Your task to perform on an android device: turn on showing notifications on the lock screen Image 0: 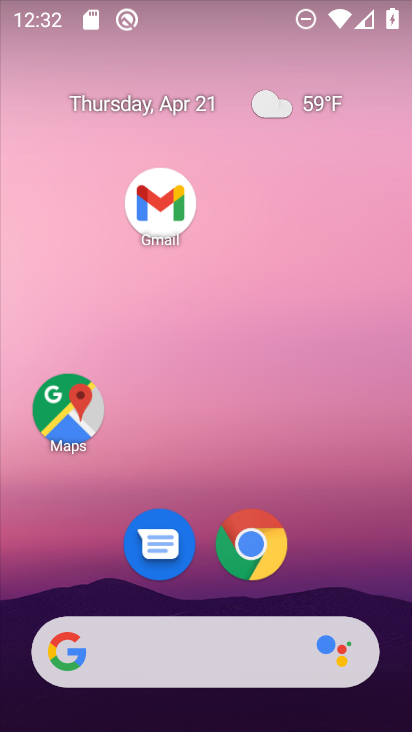
Step 0: drag from (200, 541) to (164, 118)
Your task to perform on an android device: turn on showing notifications on the lock screen Image 1: 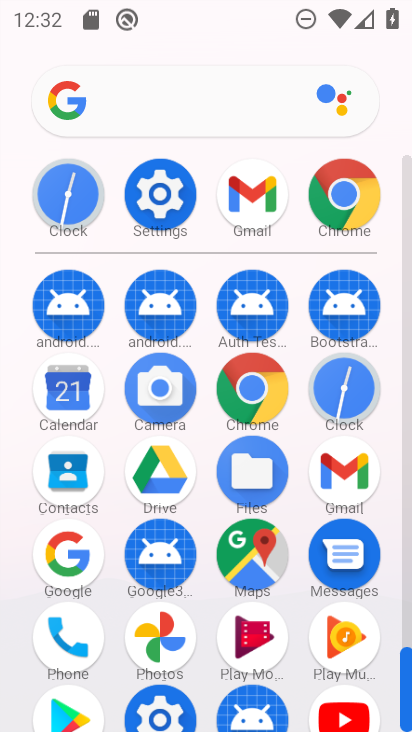
Step 1: click (150, 204)
Your task to perform on an android device: turn on showing notifications on the lock screen Image 2: 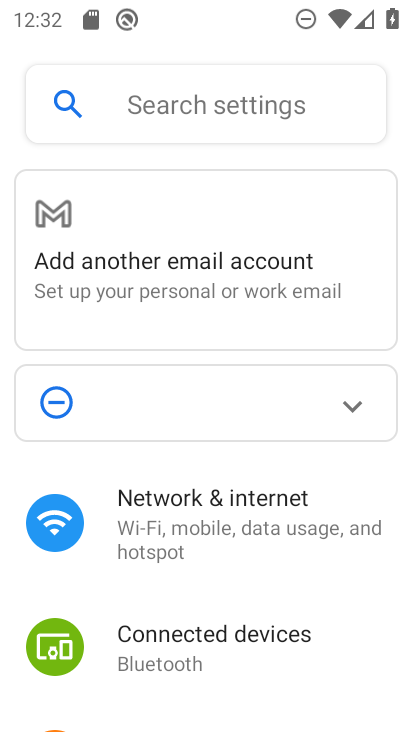
Step 2: drag from (193, 606) to (243, 177)
Your task to perform on an android device: turn on showing notifications on the lock screen Image 3: 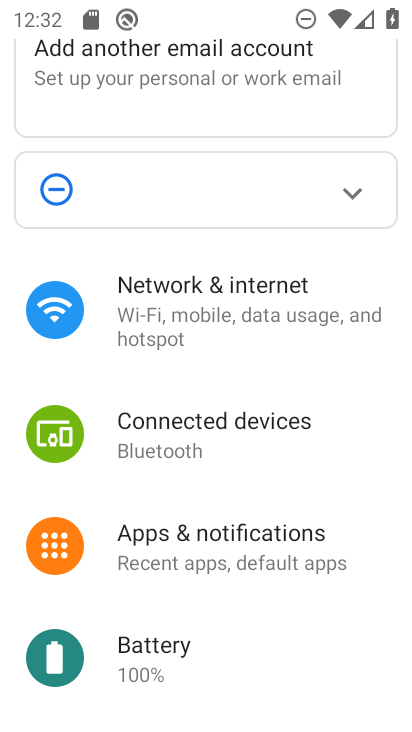
Step 3: drag from (245, 630) to (209, 186)
Your task to perform on an android device: turn on showing notifications on the lock screen Image 4: 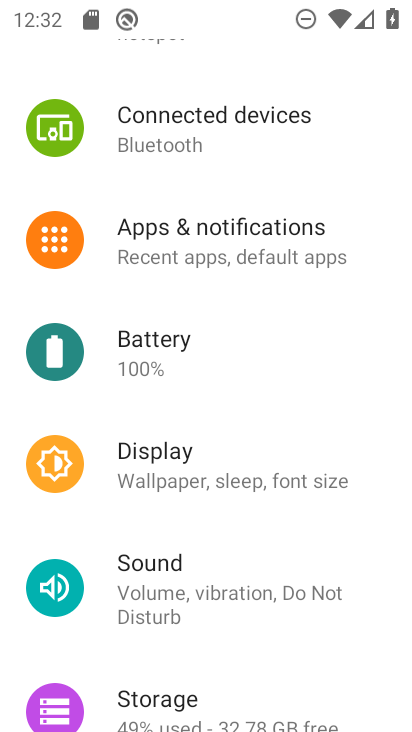
Step 4: drag from (311, 617) to (277, 256)
Your task to perform on an android device: turn on showing notifications on the lock screen Image 5: 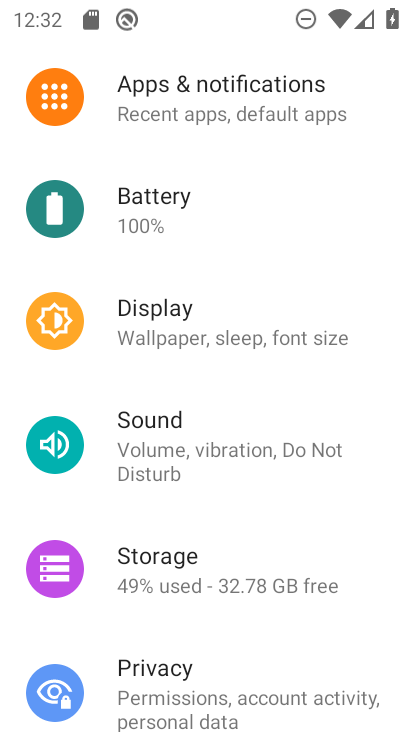
Step 5: drag from (289, 168) to (296, 341)
Your task to perform on an android device: turn on showing notifications on the lock screen Image 6: 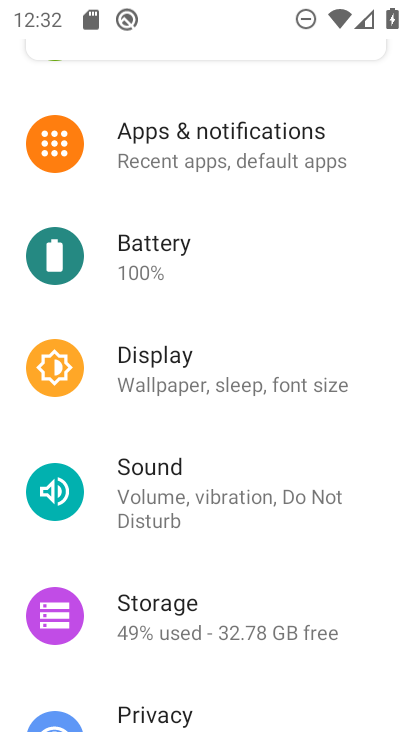
Step 6: click (206, 146)
Your task to perform on an android device: turn on showing notifications on the lock screen Image 7: 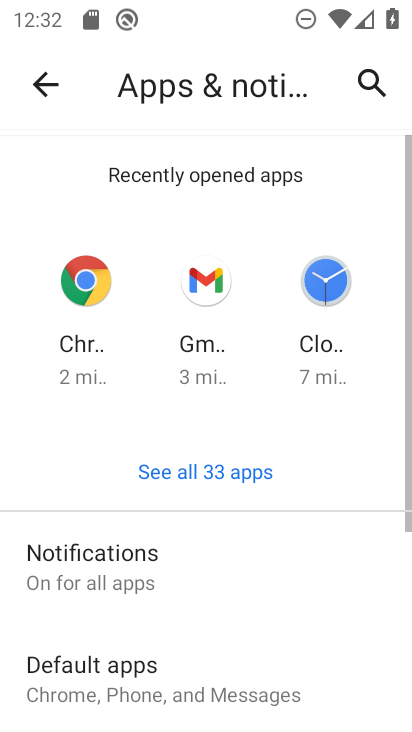
Step 7: click (125, 573)
Your task to perform on an android device: turn on showing notifications on the lock screen Image 8: 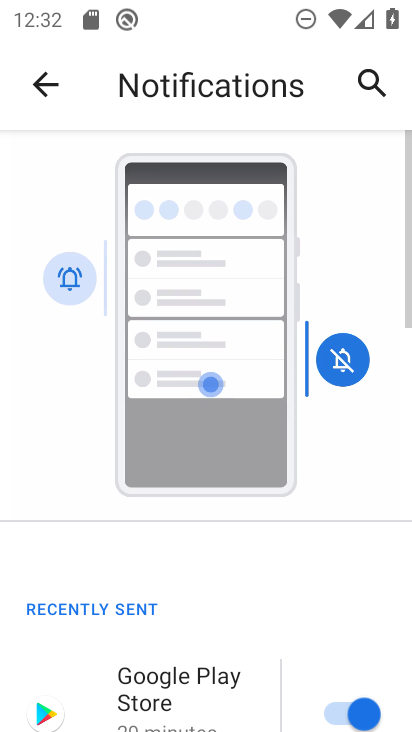
Step 8: drag from (206, 512) to (215, 118)
Your task to perform on an android device: turn on showing notifications on the lock screen Image 9: 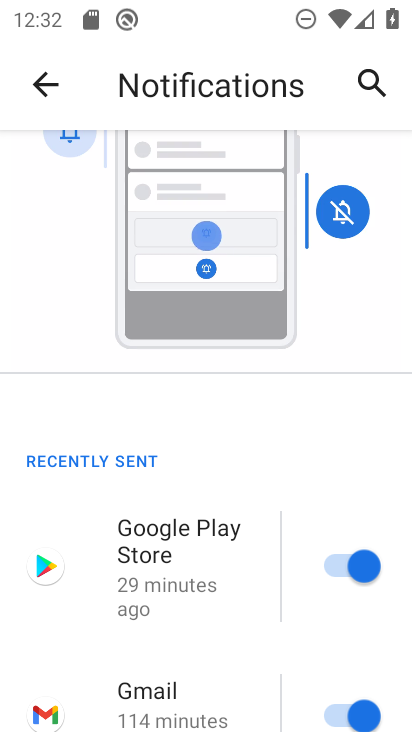
Step 9: drag from (259, 610) to (222, 175)
Your task to perform on an android device: turn on showing notifications on the lock screen Image 10: 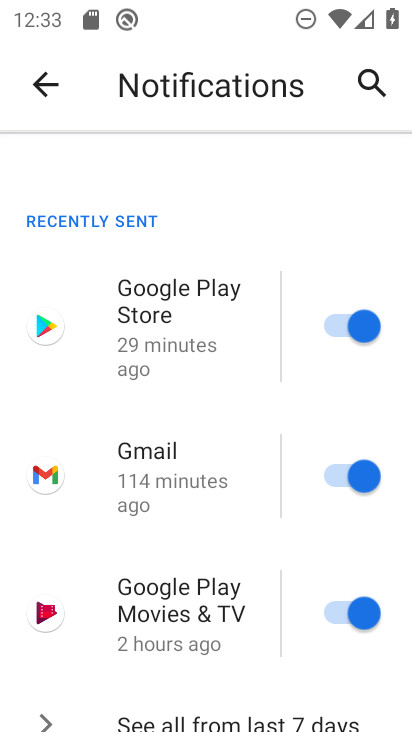
Step 10: drag from (201, 534) to (214, 176)
Your task to perform on an android device: turn on showing notifications on the lock screen Image 11: 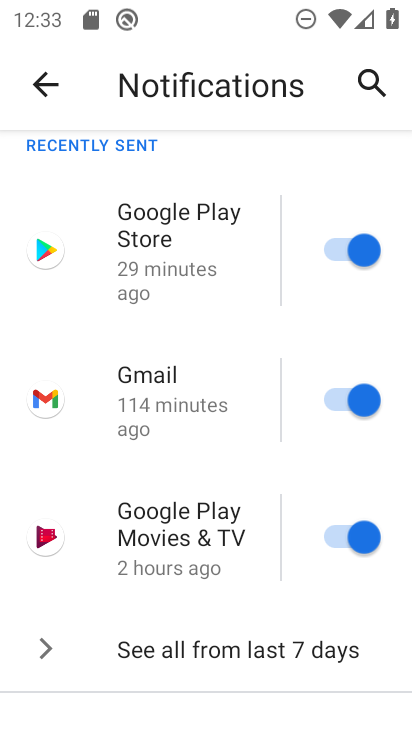
Step 11: drag from (240, 599) to (263, 146)
Your task to perform on an android device: turn on showing notifications on the lock screen Image 12: 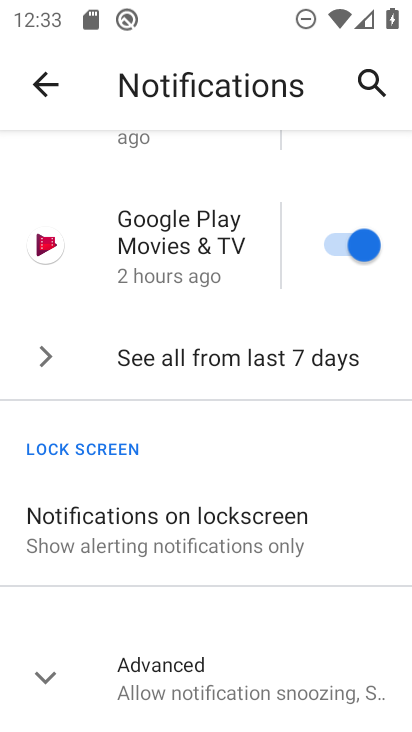
Step 12: click (239, 544)
Your task to perform on an android device: turn on showing notifications on the lock screen Image 13: 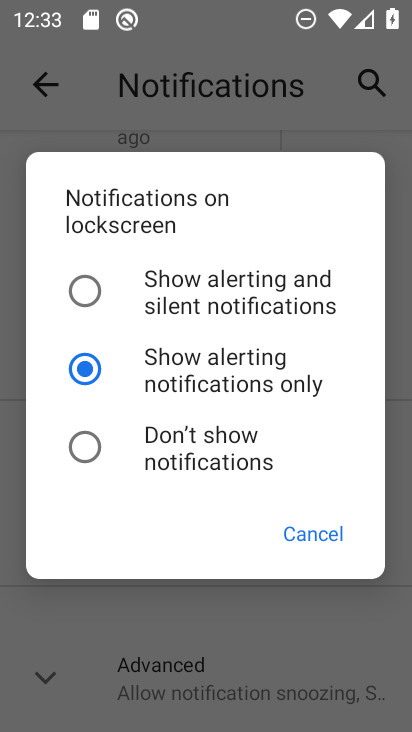
Step 13: click (81, 298)
Your task to perform on an android device: turn on showing notifications on the lock screen Image 14: 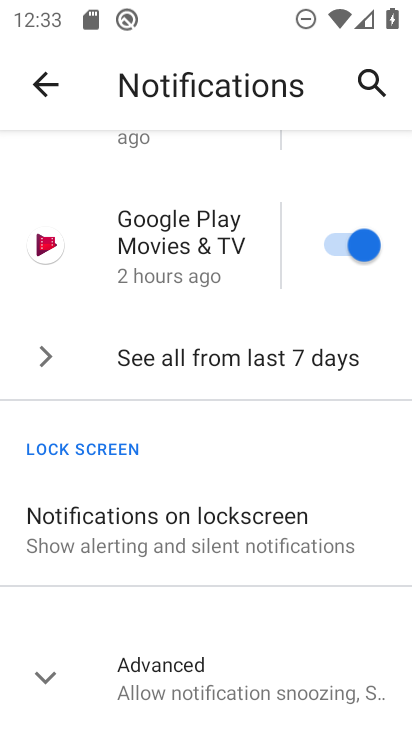
Step 14: task complete